Your task to perform on an android device: turn notification dots on Image 0: 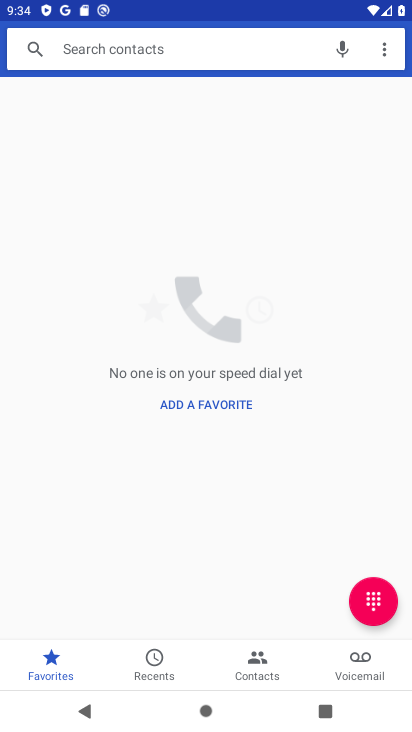
Step 0: press home button
Your task to perform on an android device: turn notification dots on Image 1: 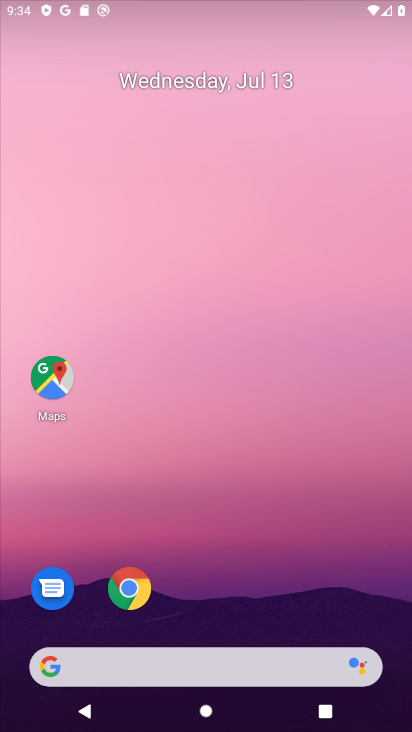
Step 1: drag from (231, 550) to (251, 259)
Your task to perform on an android device: turn notification dots on Image 2: 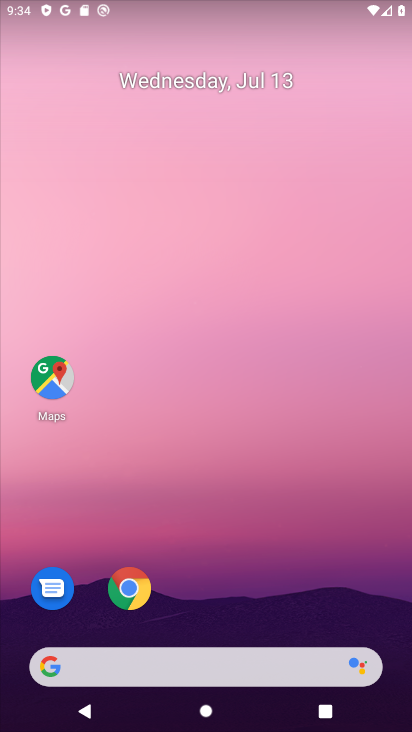
Step 2: drag from (268, 573) to (290, 51)
Your task to perform on an android device: turn notification dots on Image 3: 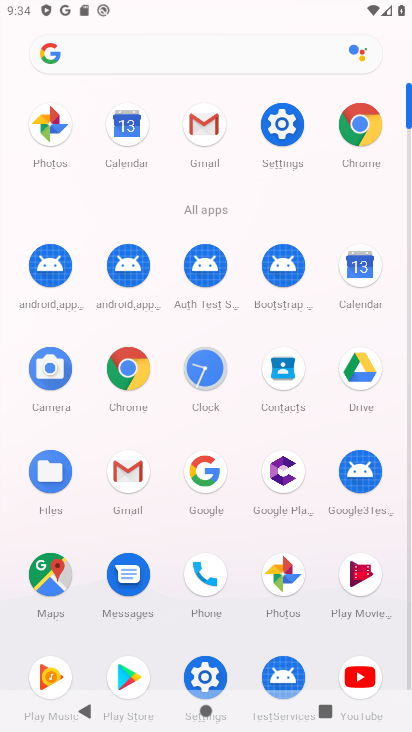
Step 3: click (283, 118)
Your task to perform on an android device: turn notification dots on Image 4: 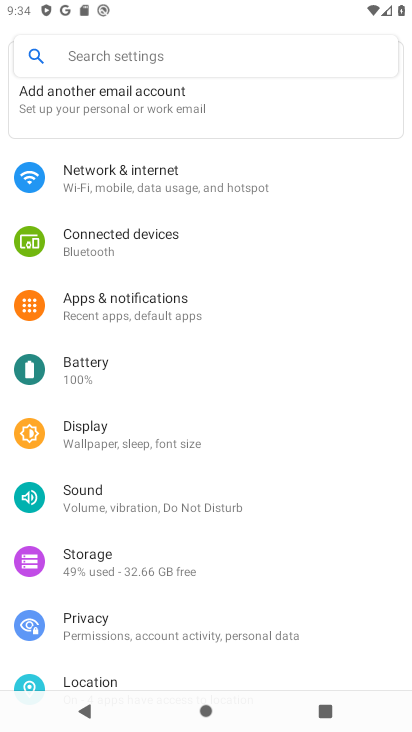
Step 4: click (197, 303)
Your task to perform on an android device: turn notification dots on Image 5: 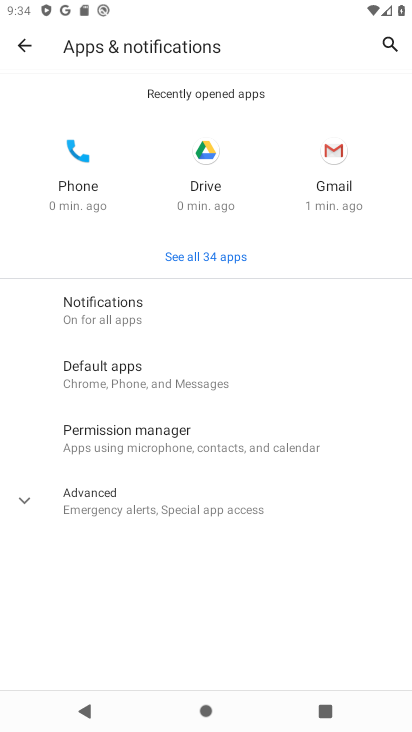
Step 5: click (197, 303)
Your task to perform on an android device: turn notification dots on Image 6: 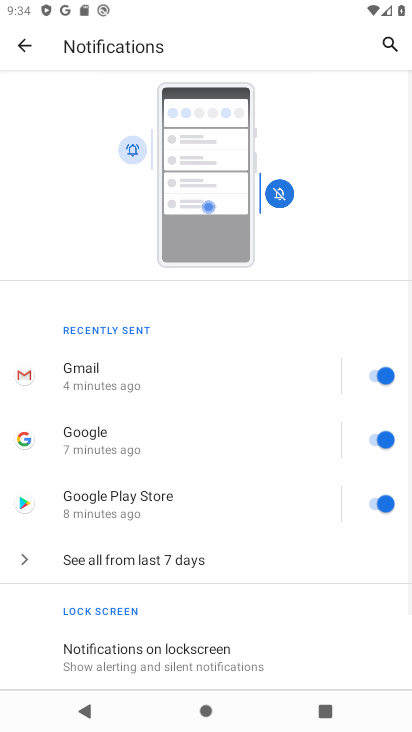
Step 6: drag from (190, 638) to (192, 198)
Your task to perform on an android device: turn notification dots on Image 7: 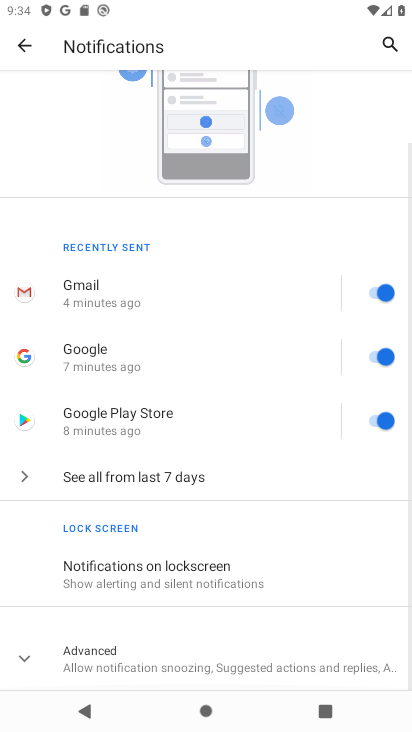
Step 7: click (127, 656)
Your task to perform on an android device: turn notification dots on Image 8: 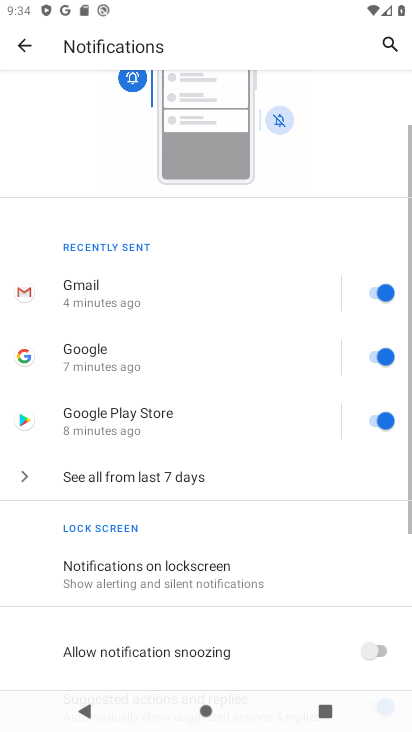
Step 8: drag from (290, 589) to (316, 235)
Your task to perform on an android device: turn notification dots on Image 9: 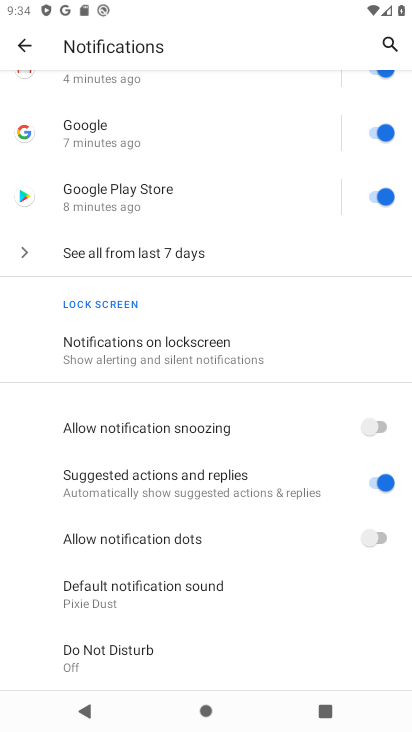
Step 9: click (375, 539)
Your task to perform on an android device: turn notification dots on Image 10: 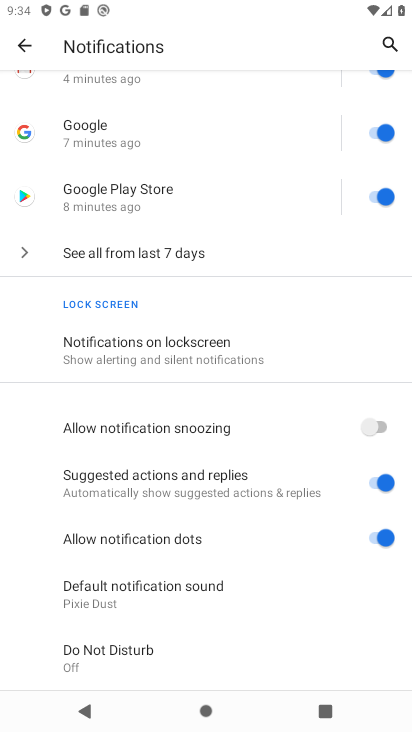
Step 10: task complete